Your task to perform on an android device: visit the assistant section in the google photos Image 0: 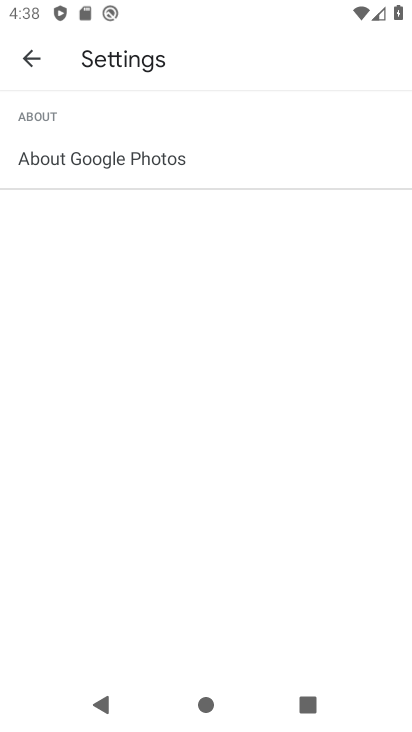
Step 0: press back button
Your task to perform on an android device: visit the assistant section in the google photos Image 1: 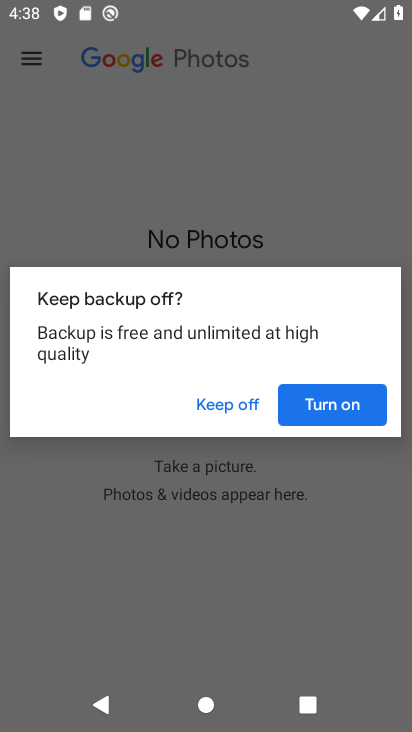
Step 1: press home button
Your task to perform on an android device: visit the assistant section in the google photos Image 2: 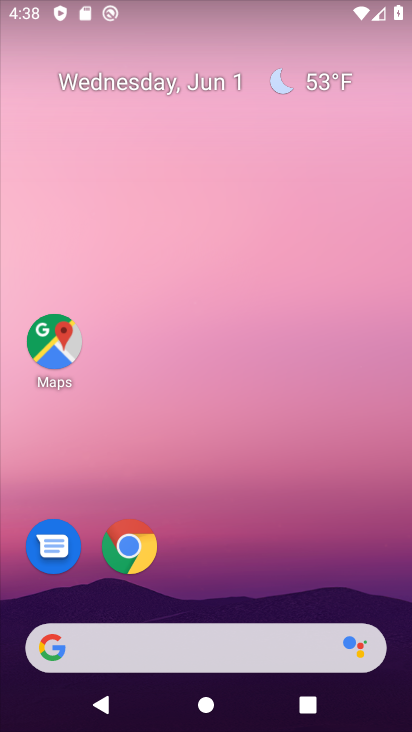
Step 2: drag from (277, 569) to (157, 29)
Your task to perform on an android device: visit the assistant section in the google photos Image 3: 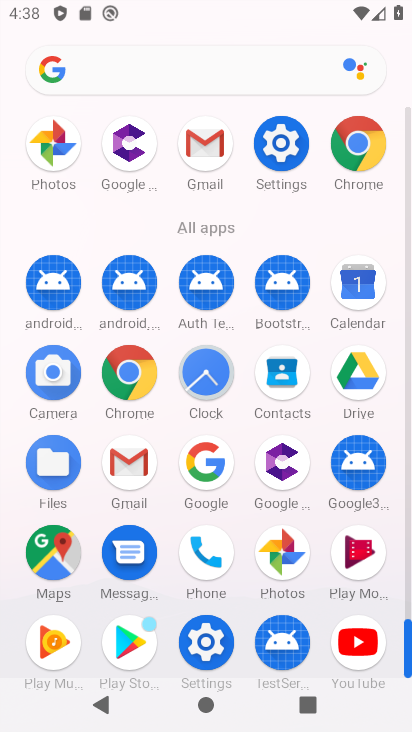
Step 3: drag from (0, 602) to (12, 150)
Your task to perform on an android device: visit the assistant section in the google photos Image 4: 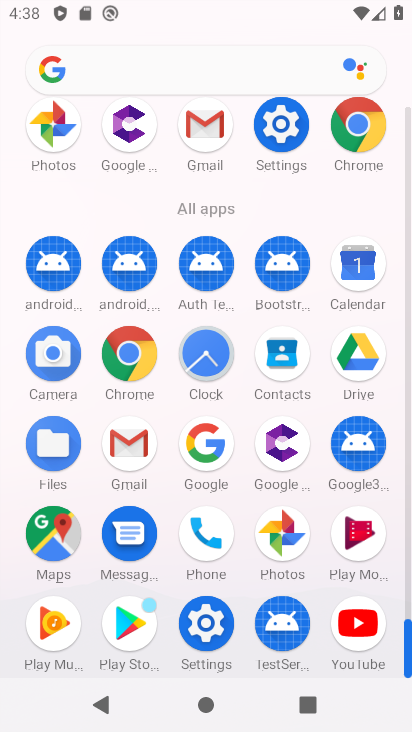
Step 4: click (276, 530)
Your task to perform on an android device: visit the assistant section in the google photos Image 5: 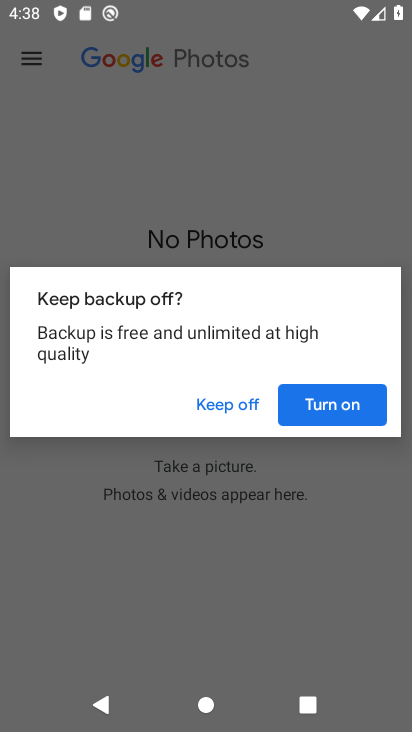
Step 5: click (318, 404)
Your task to perform on an android device: visit the assistant section in the google photos Image 6: 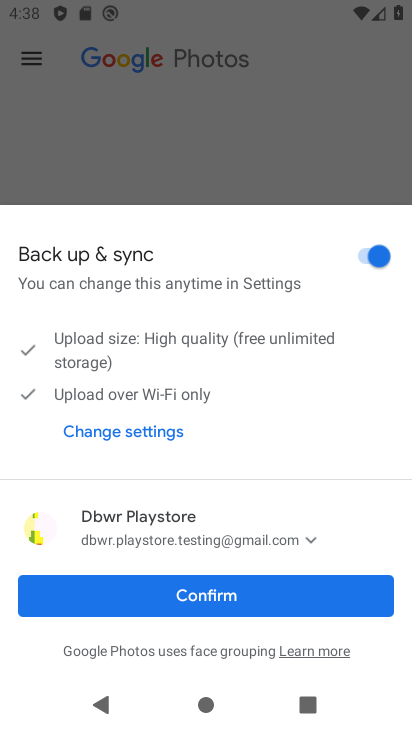
Step 6: click (213, 586)
Your task to perform on an android device: visit the assistant section in the google photos Image 7: 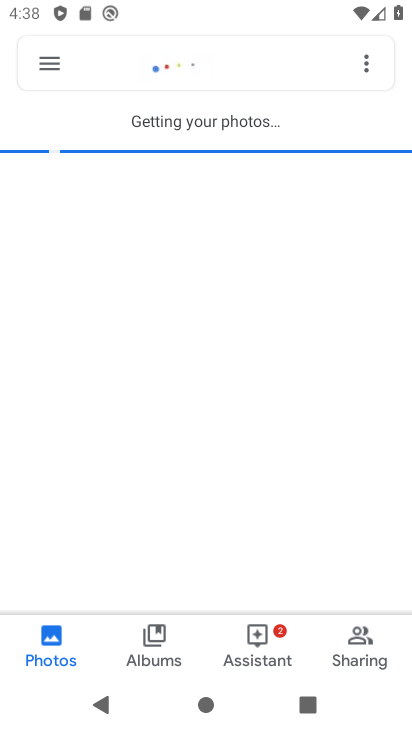
Step 7: click (43, 59)
Your task to perform on an android device: visit the assistant section in the google photos Image 8: 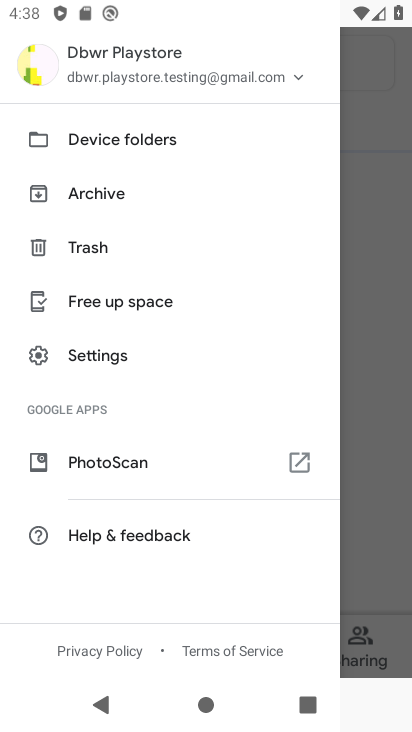
Step 8: click (359, 370)
Your task to perform on an android device: visit the assistant section in the google photos Image 9: 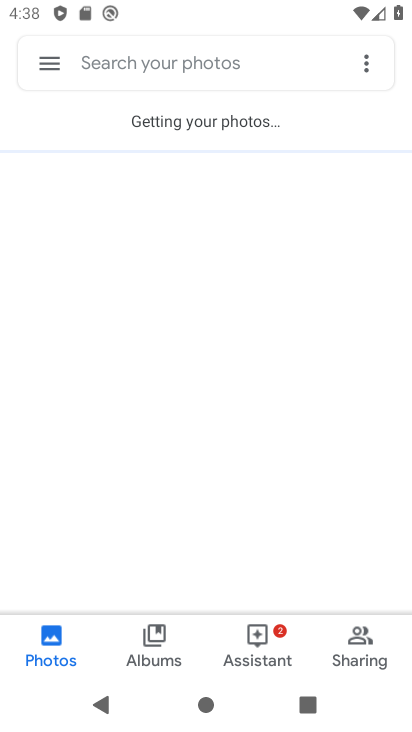
Step 9: click (267, 645)
Your task to perform on an android device: visit the assistant section in the google photos Image 10: 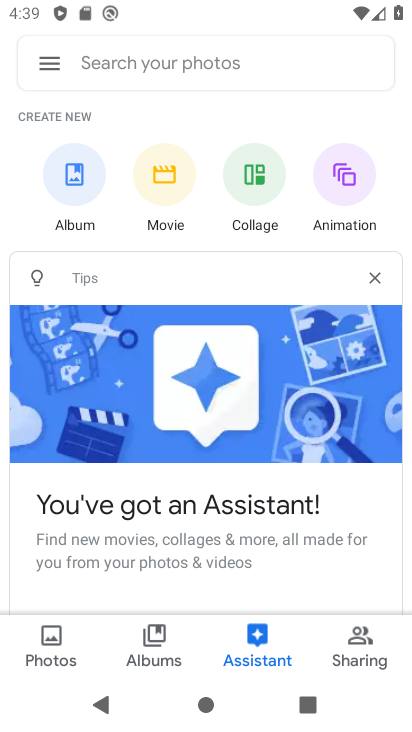
Step 10: task complete